Your task to perform on an android device: open wifi settings Image 0: 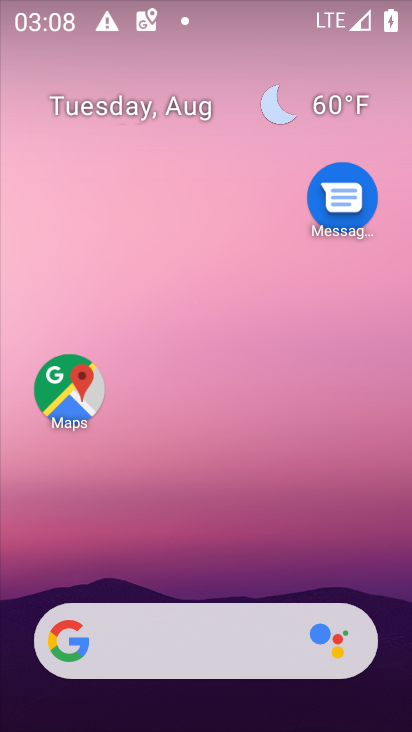
Step 0: drag from (241, 584) to (232, 102)
Your task to perform on an android device: open wifi settings Image 1: 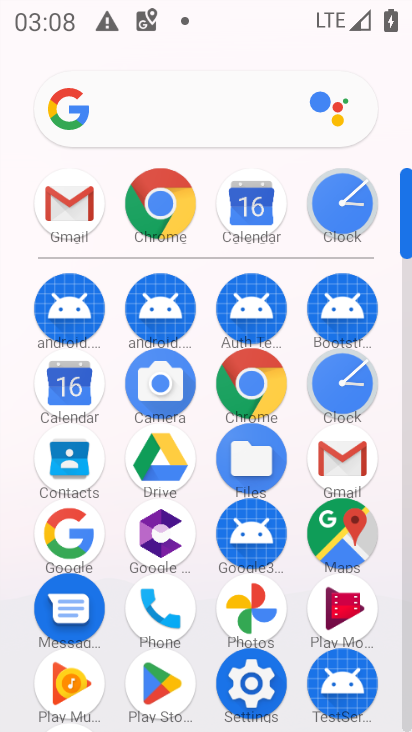
Step 1: click (237, 698)
Your task to perform on an android device: open wifi settings Image 2: 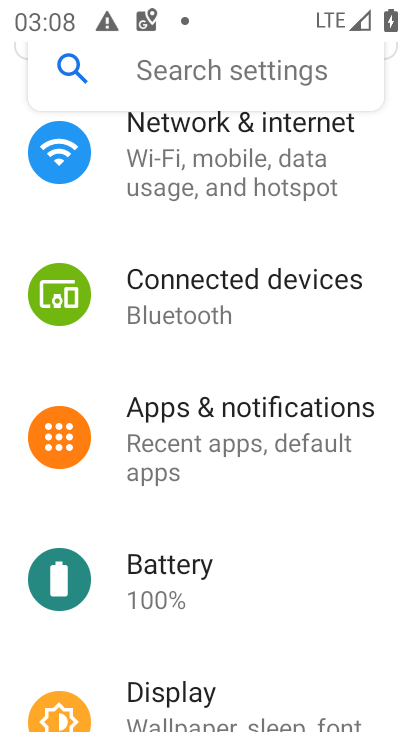
Step 2: click (159, 212)
Your task to perform on an android device: open wifi settings Image 3: 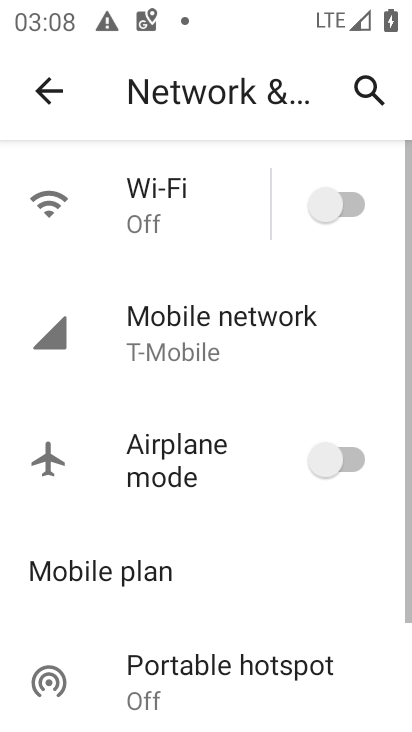
Step 3: click (159, 212)
Your task to perform on an android device: open wifi settings Image 4: 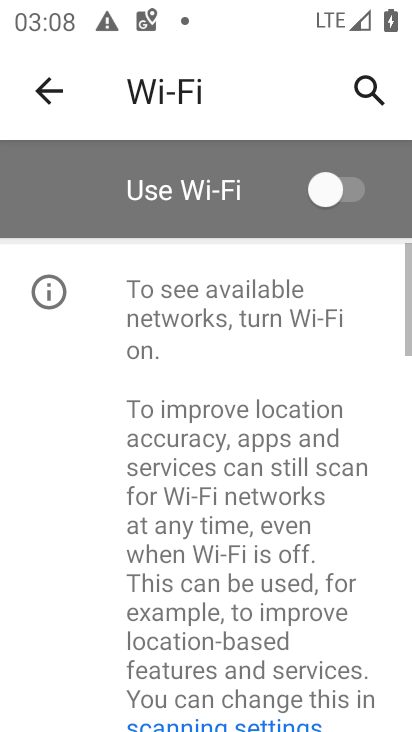
Step 4: task complete